Your task to perform on an android device: What's the price of the Samsung TV? Image 0: 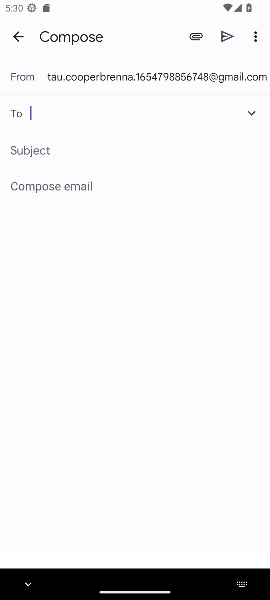
Step 0: press home button
Your task to perform on an android device: What's the price of the Samsung TV? Image 1: 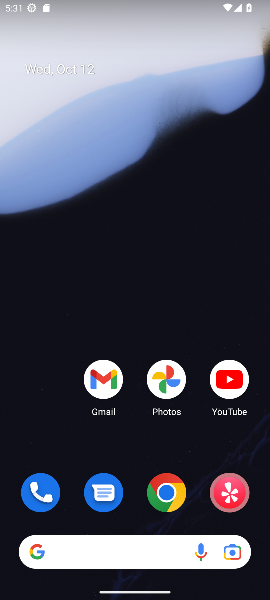
Step 1: click (168, 499)
Your task to perform on an android device: What's the price of the Samsung TV? Image 2: 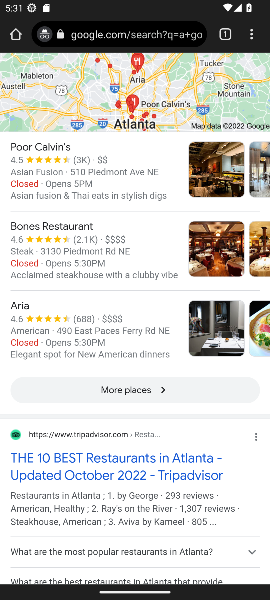
Step 2: click (107, 40)
Your task to perform on an android device: What's the price of the Samsung TV? Image 3: 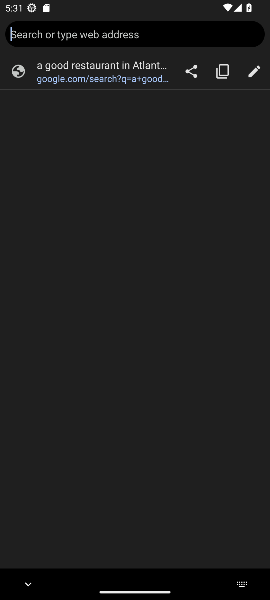
Step 3: type "the price of the Samsung TV"
Your task to perform on an android device: What's the price of the Samsung TV? Image 4: 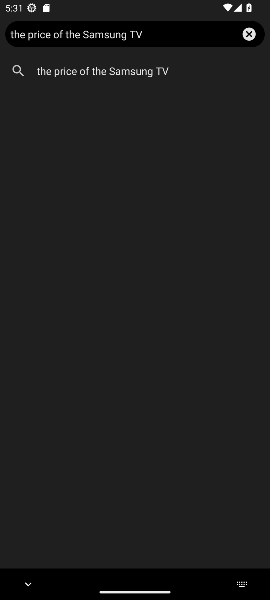
Step 4: click (133, 77)
Your task to perform on an android device: What's the price of the Samsung TV? Image 5: 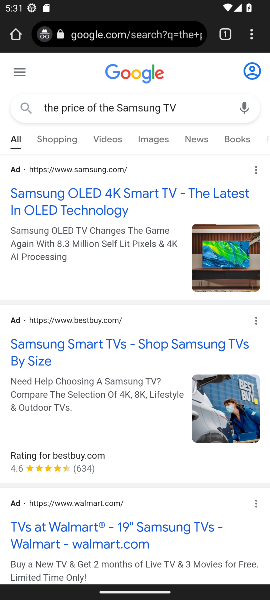
Step 5: click (57, 141)
Your task to perform on an android device: What's the price of the Samsung TV? Image 6: 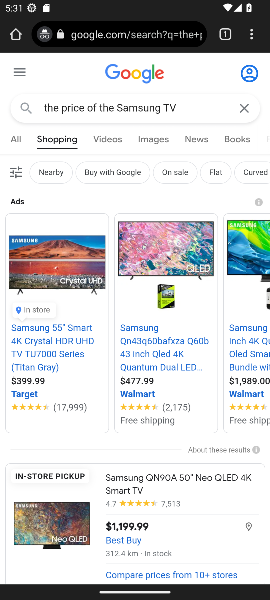
Step 6: task complete